Your task to perform on an android device: turn notification dots on Image 0: 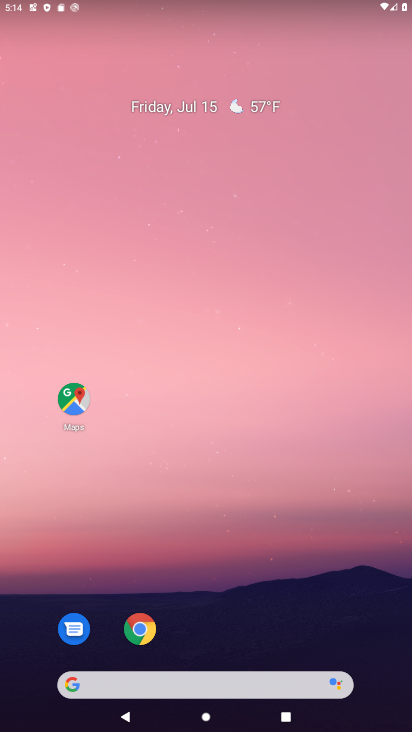
Step 0: press home button
Your task to perform on an android device: turn notification dots on Image 1: 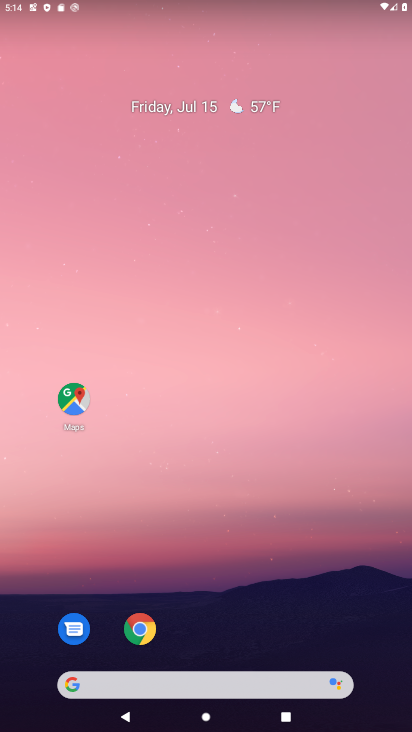
Step 1: drag from (278, 617) to (247, 88)
Your task to perform on an android device: turn notification dots on Image 2: 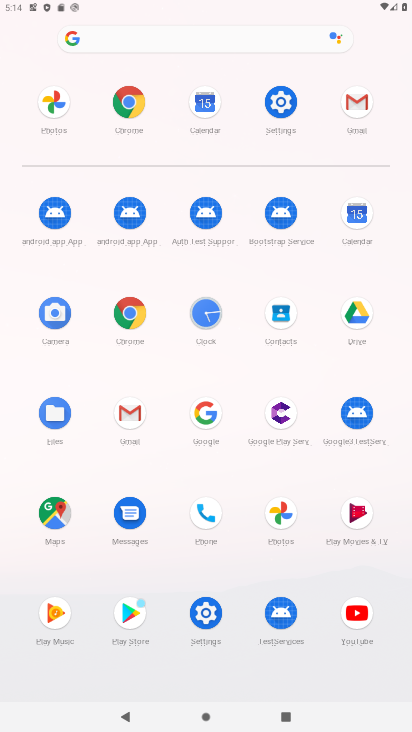
Step 2: click (282, 107)
Your task to perform on an android device: turn notification dots on Image 3: 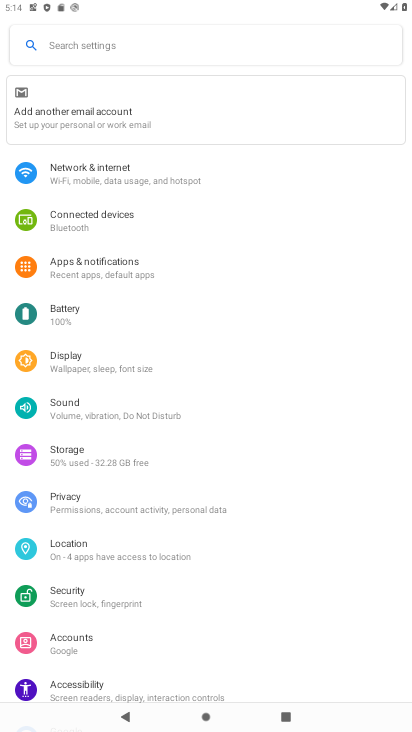
Step 3: click (112, 271)
Your task to perform on an android device: turn notification dots on Image 4: 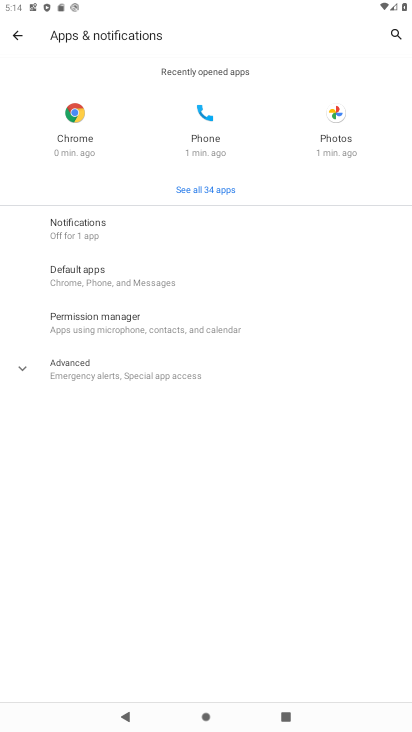
Step 4: click (79, 238)
Your task to perform on an android device: turn notification dots on Image 5: 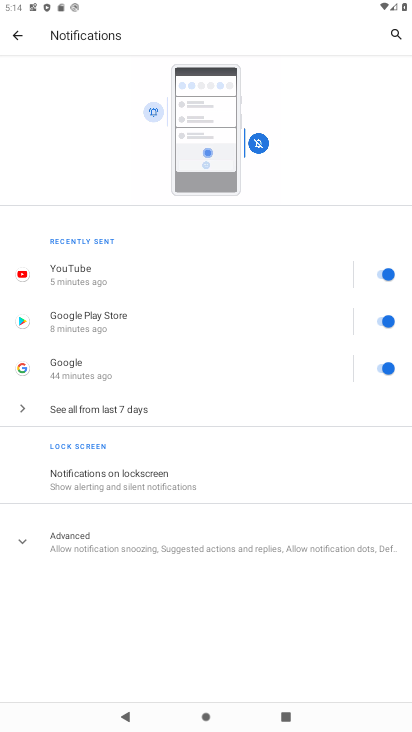
Step 5: click (25, 541)
Your task to perform on an android device: turn notification dots on Image 6: 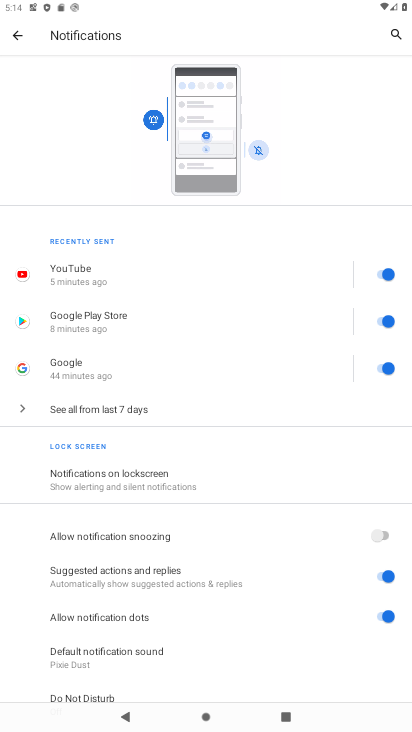
Step 6: task complete